Your task to perform on an android device: Open the stopwatch Image 0: 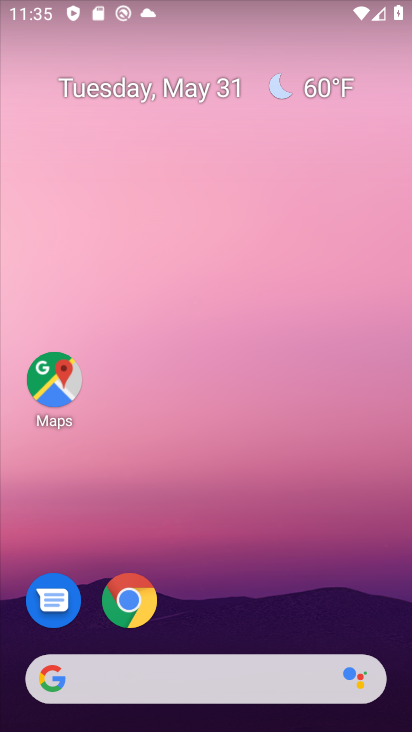
Step 0: drag from (364, 623) to (369, 237)
Your task to perform on an android device: Open the stopwatch Image 1: 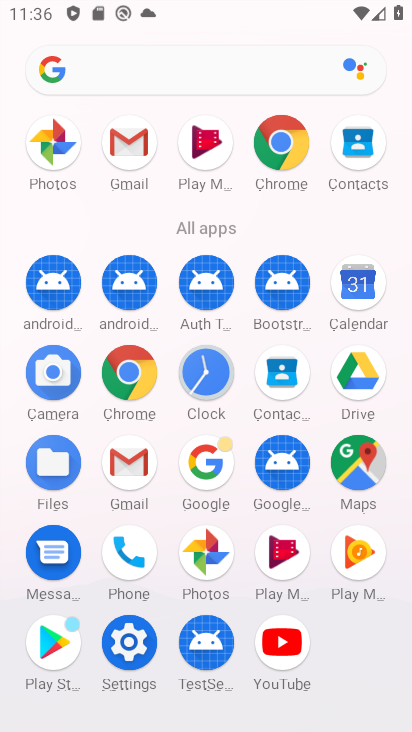
Step 1: click (219, 378)
Your task to perform on an android device: Open the stopwatch Image 2: 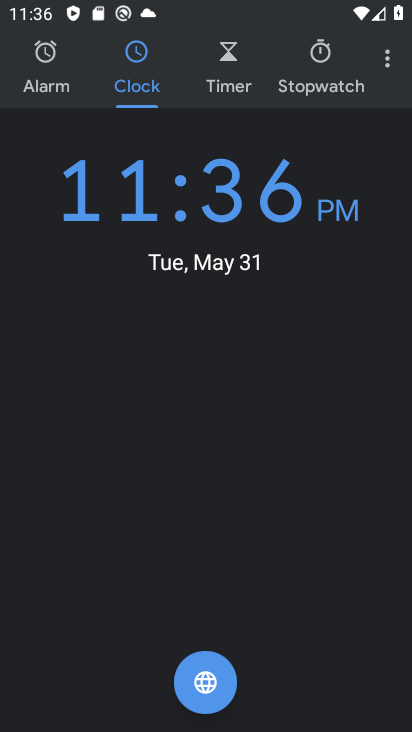
Step 2: click (324, 77)
Your task to perform on an android device: Open the stopwatch Image 3: 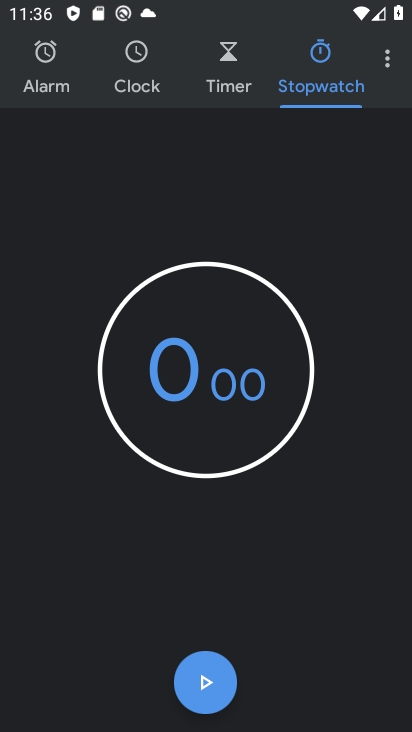
Step 3: task complete